Your task to perform on an android device: Open Google Chrome and click the shortcut for Amazon.com Image 0: 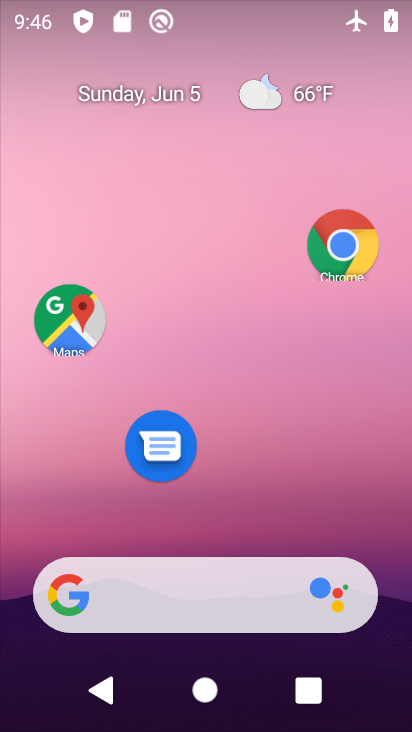
Step 0: click (361, 251)
Your task to perform on an android device: Open Google Chrome and click the shortcut for Amazon.com Image 1: 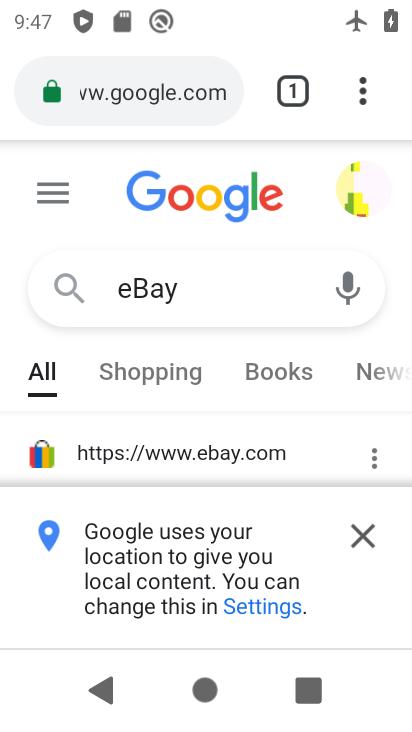
Step 1: click (304, 94)
Your task to perform on an android device: Open Google Chrome and click the shortcut for Amazon.com Image 2: 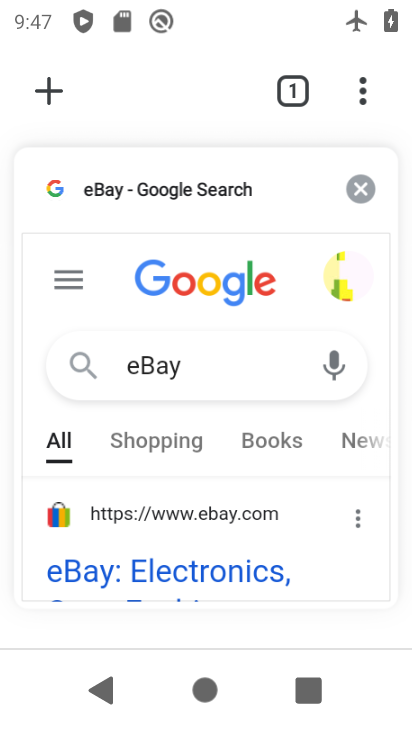
Step 2: click (46, 92)
Your task to perform on an android device: Open Google Chrome and click the shortcut for Amazon.com Image 3: 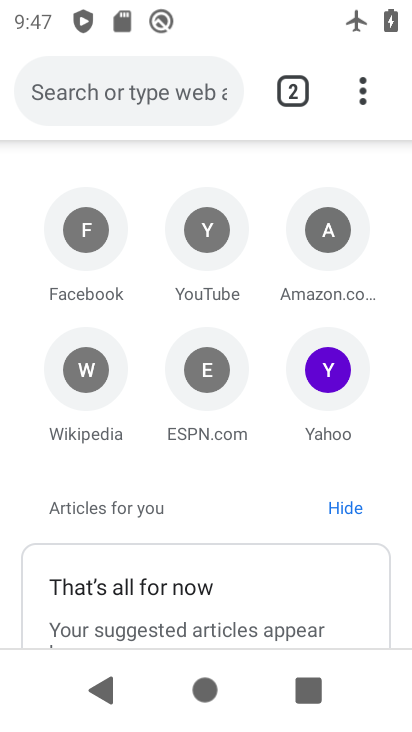
Step 3: click (338, 244)
Your task to perform on an android device: Open Google Chrome and click the shortcut for Amazon.com Image 4: 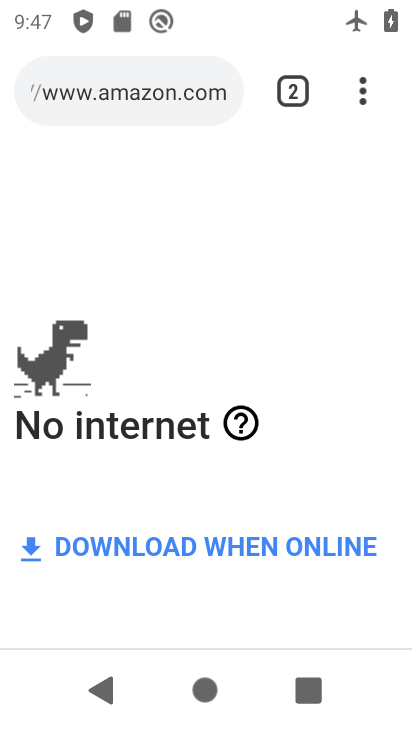
Step 4: task complete